Your task to perform on an android device: Search for Italian restaurants on Maps Image 0: 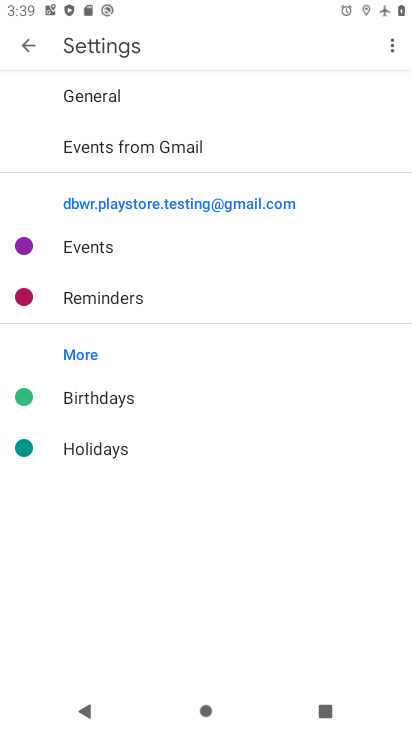
Step 0: press home button
Your task to perform on an android device: Search for Italian restaurants on Maps Image 1: 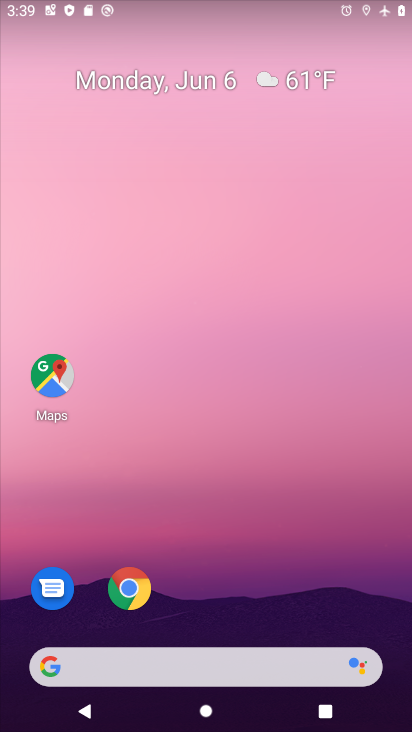
Step 1: drag from (304, 7) to (326, 346)
Your task to perform on an android device: Search for Italian restaurants on Maps Image 2: 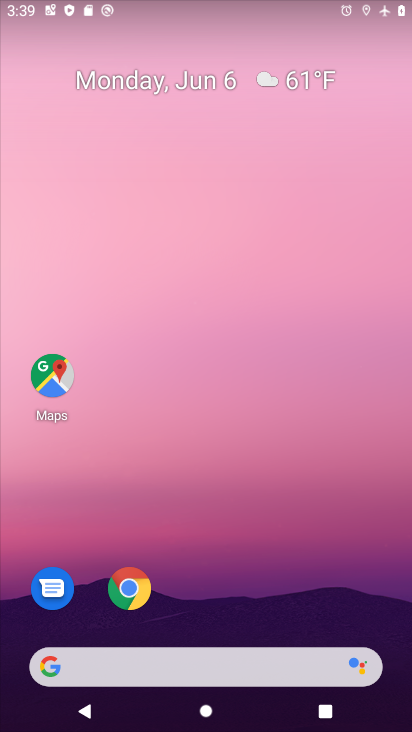
Step 2: drag from (276, 29) to (294, 375)
Your task to perform on an android device: Search for Italian restaurants on Maps Image 3: 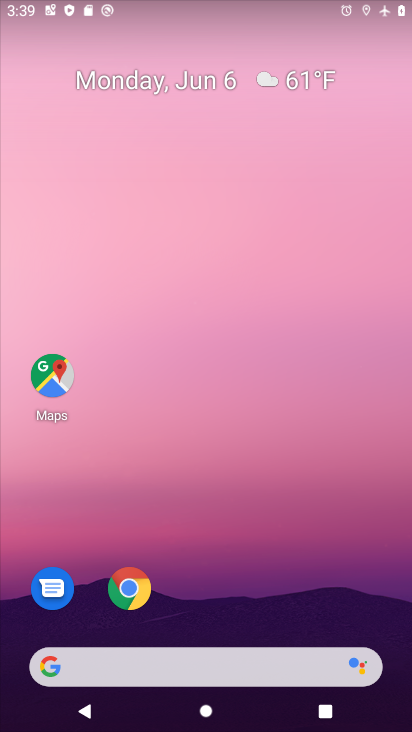
Step 3: drag from (240, 5) to (278, 484)
Your task to perform on an android device: Search for Italian restaurants on Maps Image 4: 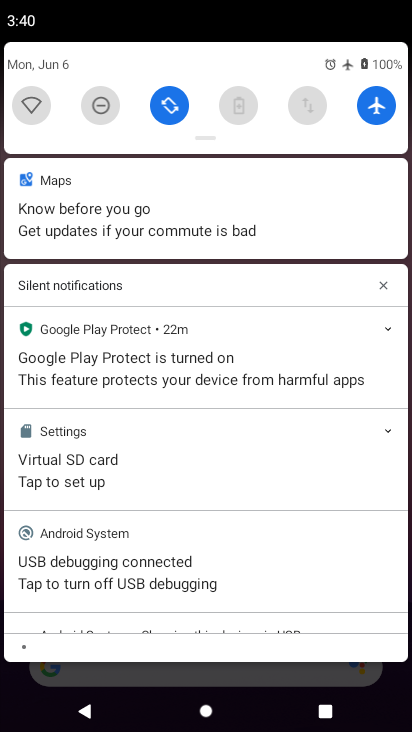
Step 4: click (381, 113)
Your task to perform on an android device: Search for Italian restaurants on Maps Image 5: 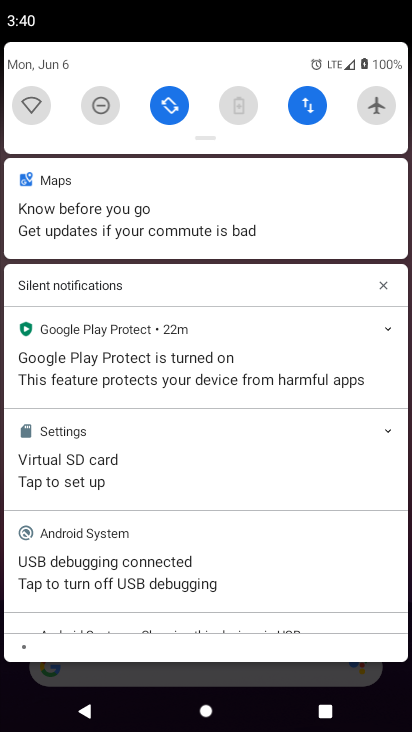
Step 5: press home button
Your task to perform on an android device: Search for Italian restaurants on Maps Image 6: 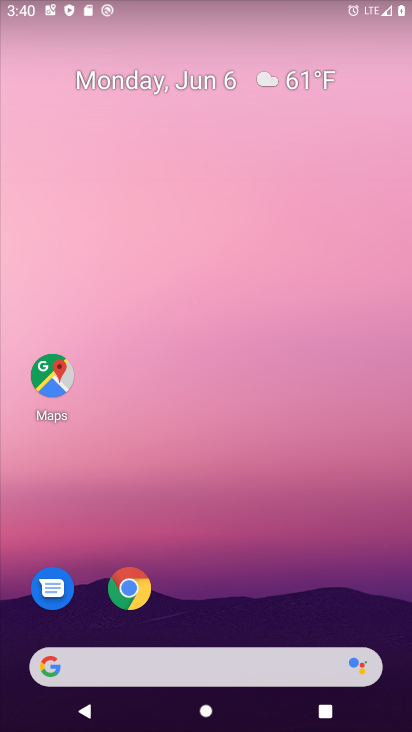
Step 6: click (55, 378)
Your task to perform on an android device: Search for Italian restaurants on Maps Image 7: 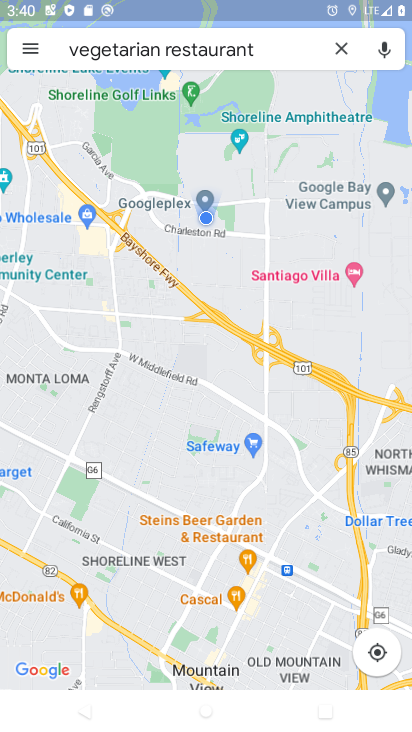
Step 7: click (344, 52)
Your task to perform on an android device: Search for Italian restaurants on Maps Image 8: 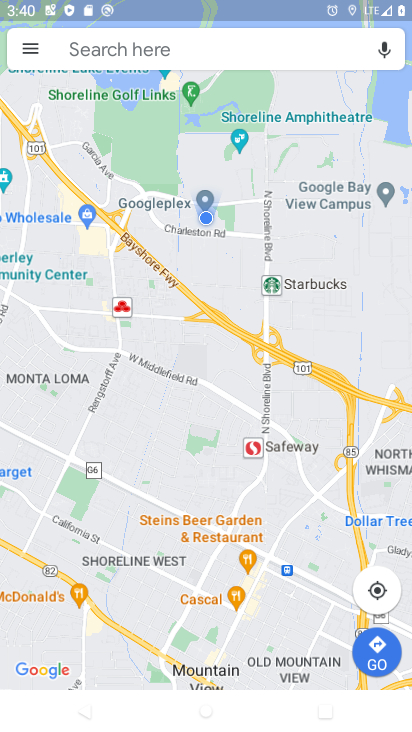
Step 8: click (183, 52)
Your task to perform on an android device: Search for Italian restaurants on Maps Image 9: 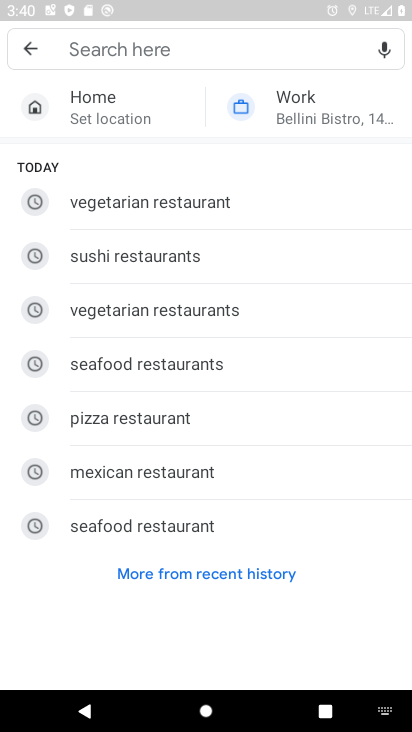
Step 9: type "Italian restaurants"
Your task to perform on an android device: Search for Italian restaurants on Maps Image 10: 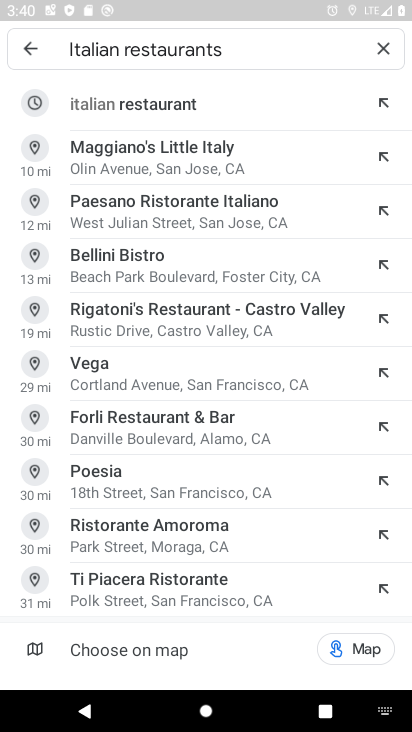
Step 10: click (206, 118)
Your task to perform on an android device: Search for Italian restaurants on Maps Image 11: 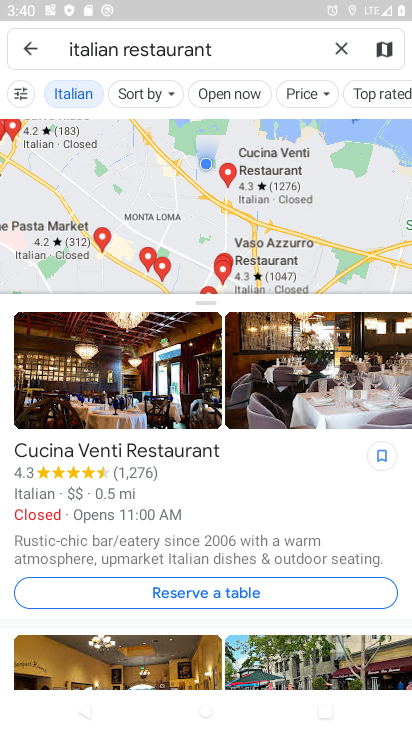
Step 11: task complete